Your task to perform on an android device: change the clock style Image 0: 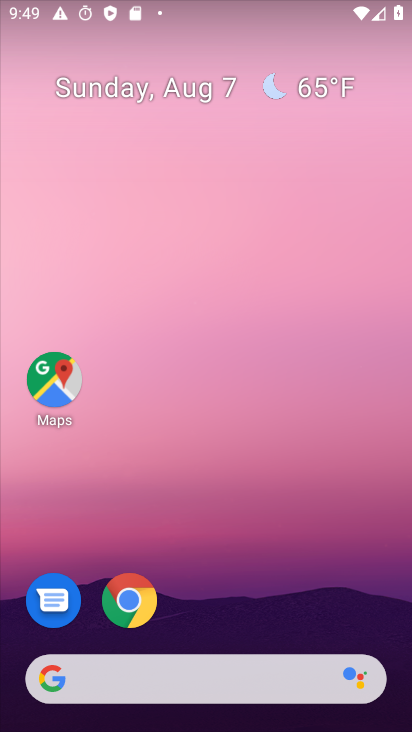
Step 0: drag from (137, 689) to (201, 52)
Your task to perform on an android device: change the clock style Image 1: 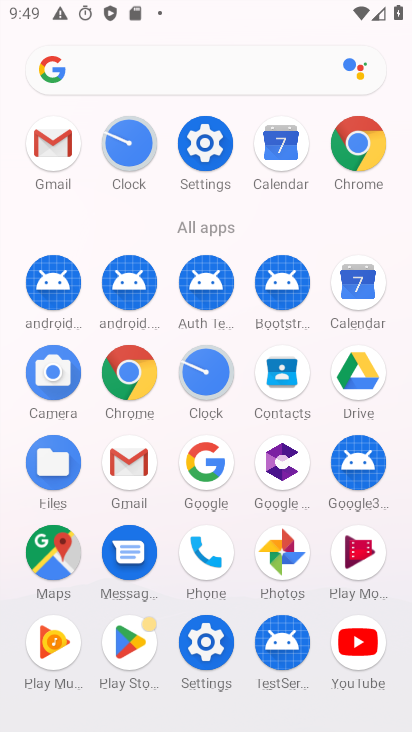
Step 1: click (214, 366)
Your task to perform on an android device: change the clock style Image 2: 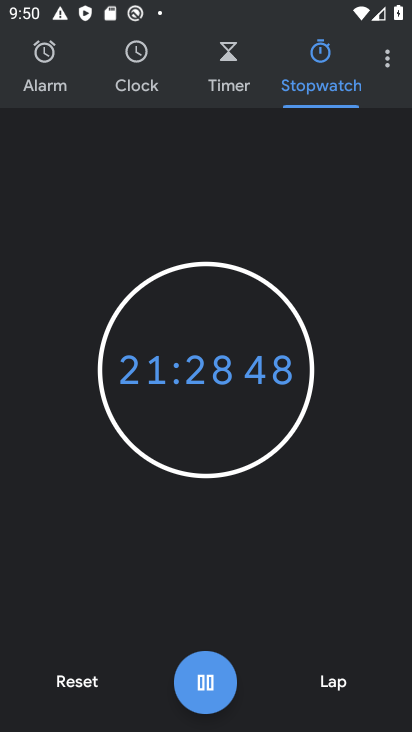
Step 2: click (384, 63)
Your task to perform on an android device: change the clock style Image 3: 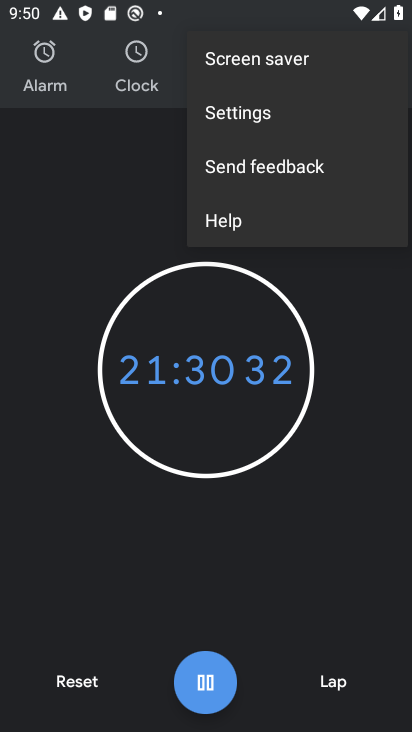
Step 3: click (221, 119)
Your task to perform on an android device: change the clock style Image 4: 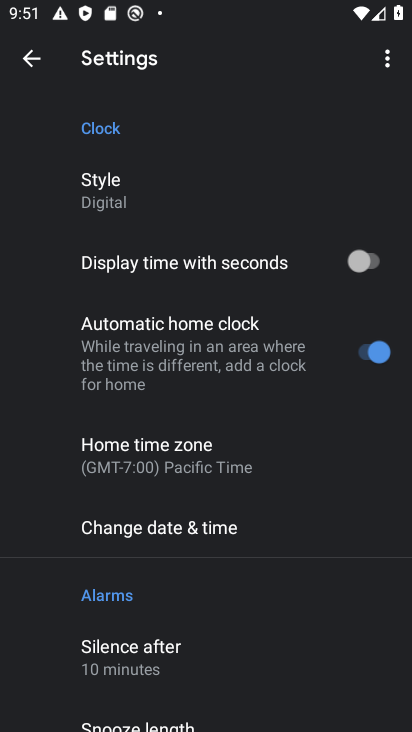
Step 4: click (118, 187)
Your task to perform on an android device: change the clock style Image 5: 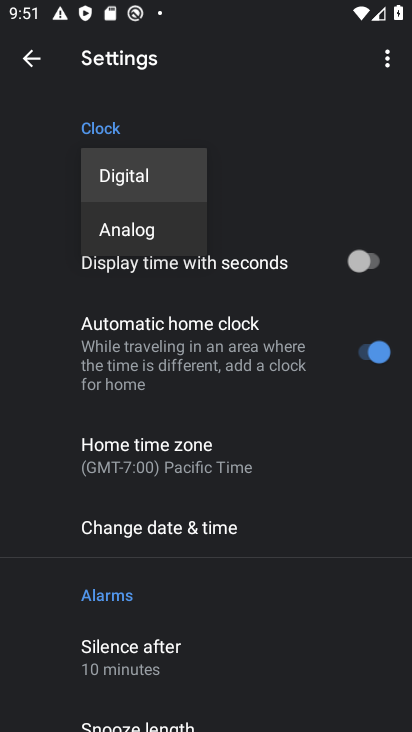
Step 5: click (155, 238)
Your task to perform on an android device: change the clock style Image 6: 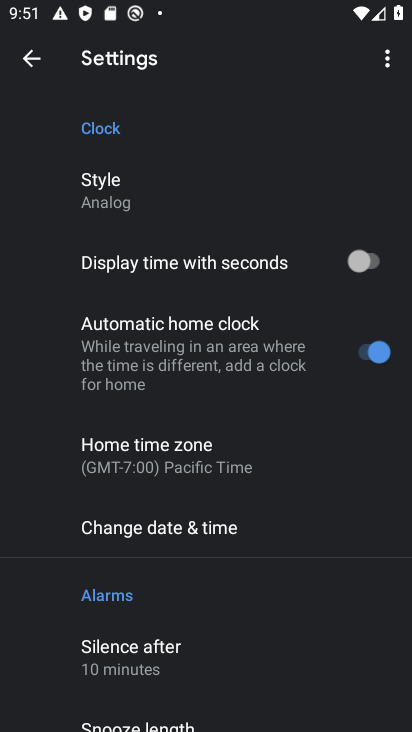
Step 6: task complete